Your task to perform on an android device: Open Android settings Image 0: 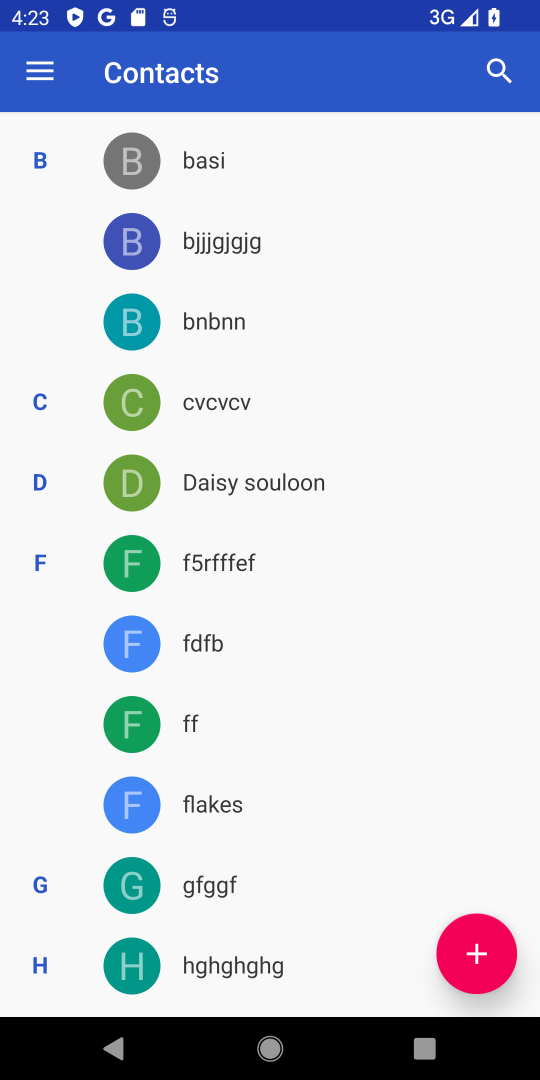
Step 0: press home button
Your task to perform on an android device: Open Android settings Image 1: 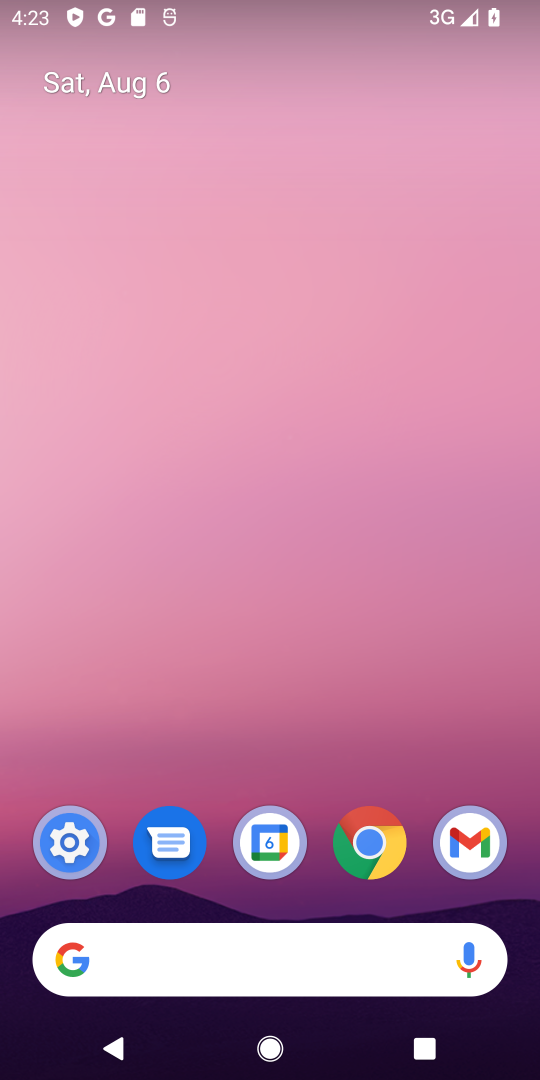
Step 1: click (48, 845)
Your task to perform on an android device: Open Android settings Image 2: 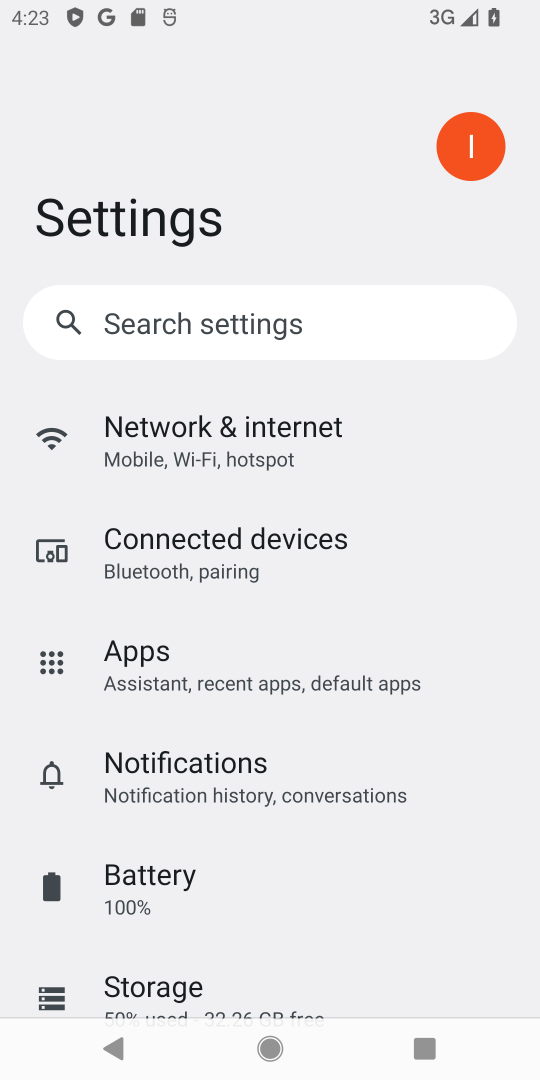
Step 2: task complete